Your task to perform on an android device: Open notification settings Image 0: 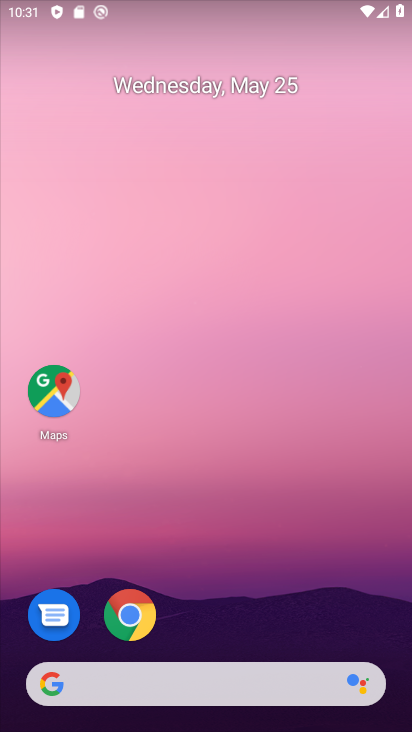
Step 0: drag from (258, 654) to (321, 66)
Your task to perform on an android device: Open notification settings Image 1: 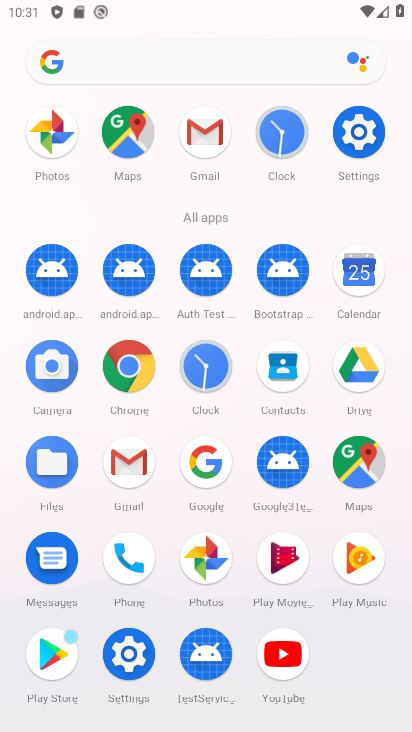
Step 1: click (353, 144)
Your task to perform on an android device: Open notification settings Image 2: 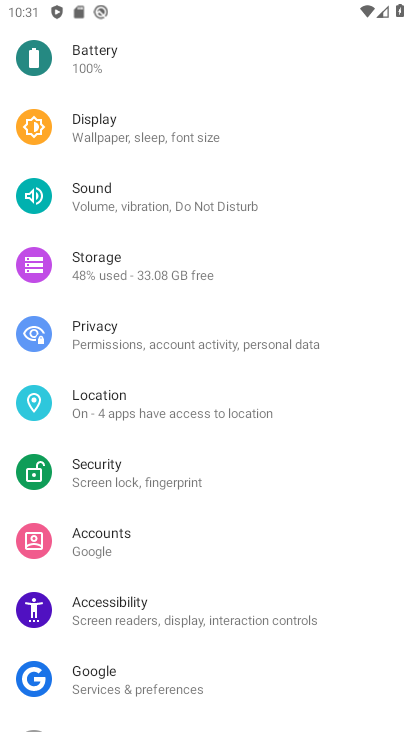
Step 2: drag from (165, 182) to (183, 528)
Your task to perform on an android device: Open notification settings Image 3: 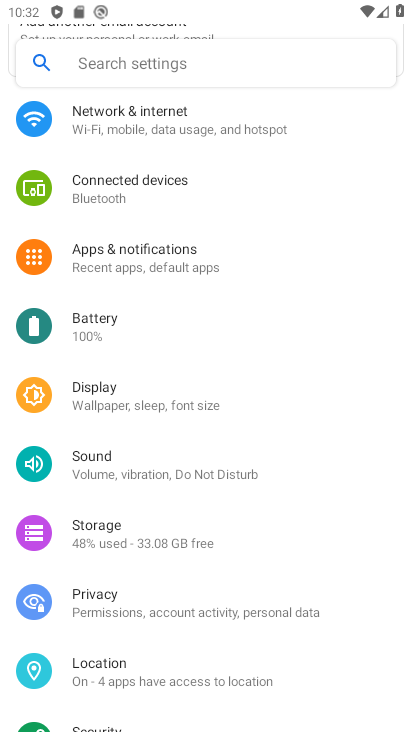
Step 3: click (170, 277)
Your task to perform on an android device: Open notification settings Image 4: 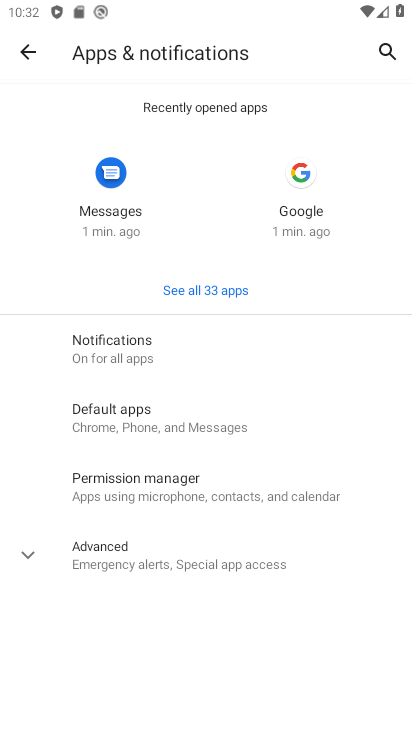
Step 4: click (146, 345)
Your task to perform on an android device: Open notification settings Image 5: 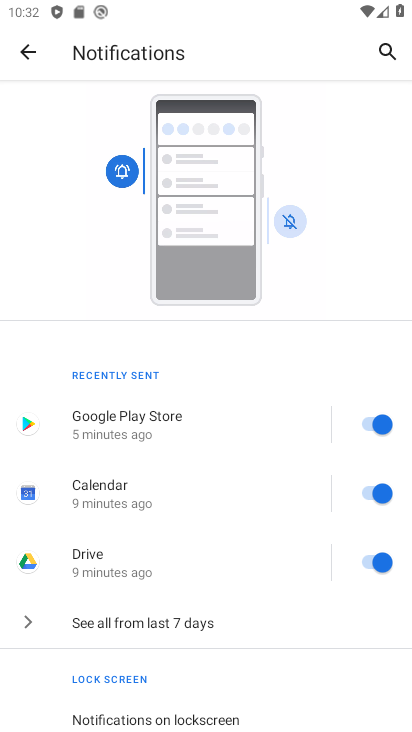
Step 5: task complete